Your task to perform on an android device: Go to battery settings Image 0: 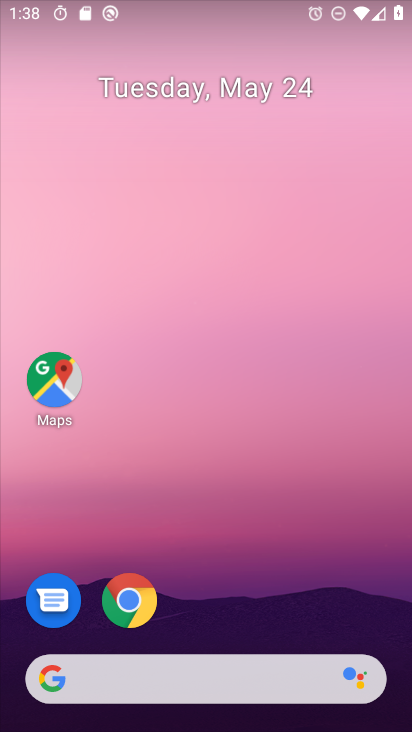
Step 0: drag from (274, 412) to (240, 45)
Your task to perform on an android device: Go to battery settings Image 1: 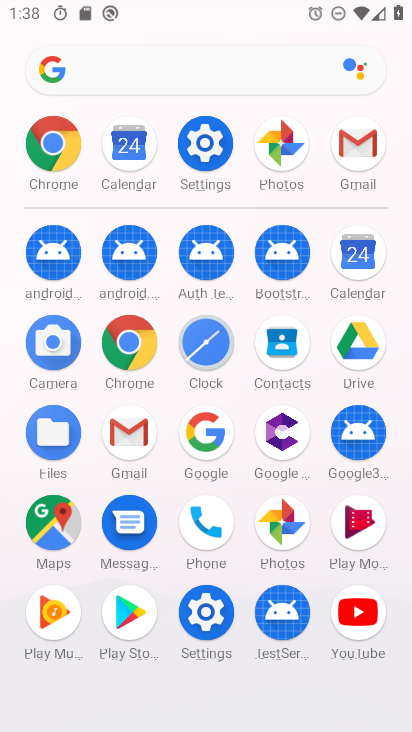
Step 1: click (203, 152)
Your task to perform on an android device: Go to battery settings Image 2: 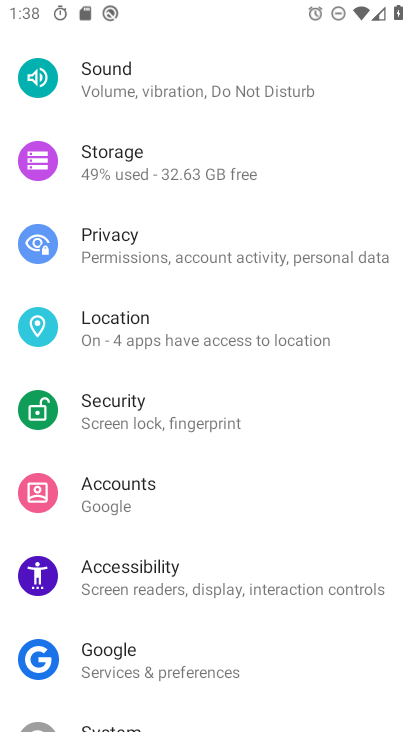
Step 2: drag from (258, 571) to (277, 228)
Your task to perform on an android device: Go to battery settings Image 3: 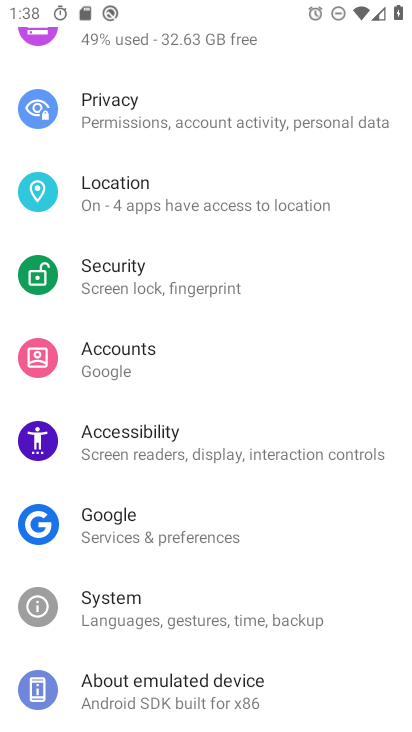
Step 3: drag from (257, 242) to (260, 610)
Your task to perform on an android device: Go to battery settings Image 4: 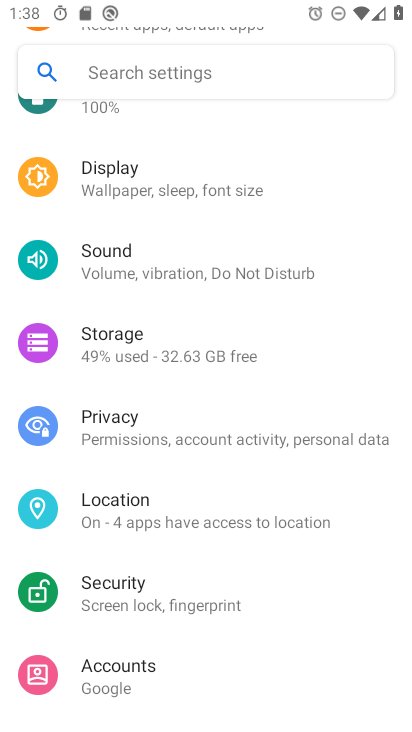
Step 4: drag from (243, 258) to (231, 572)
Your task to perform on an android device: Go to battery settings Image 5: 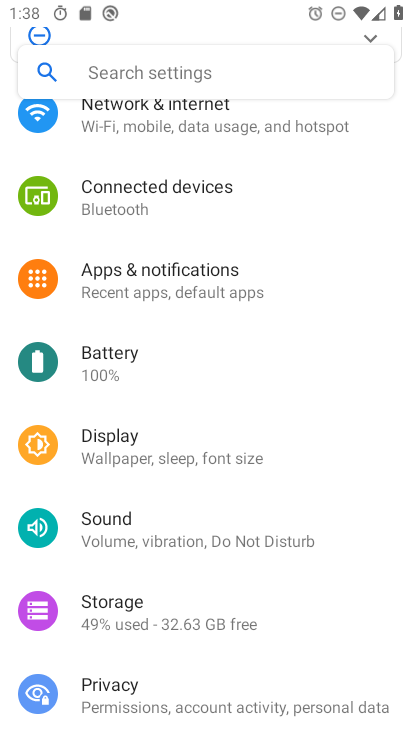
Step 5: click (101, 355)
Your task to perform on an android device: Go to battery settings Image 6: 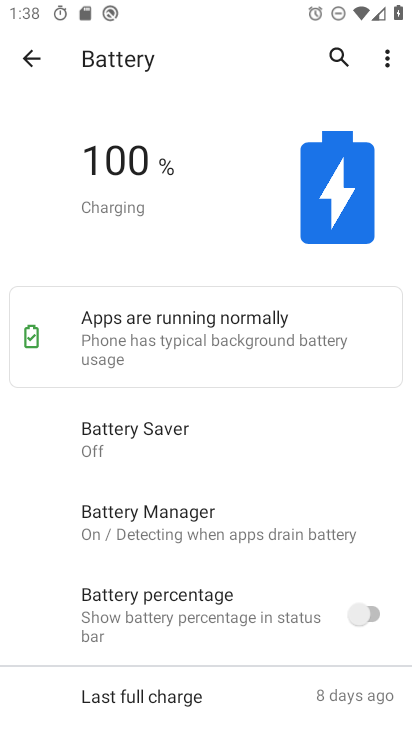
Step 6: task complete